Your task to perform on an android device: Open location settings Image 0: 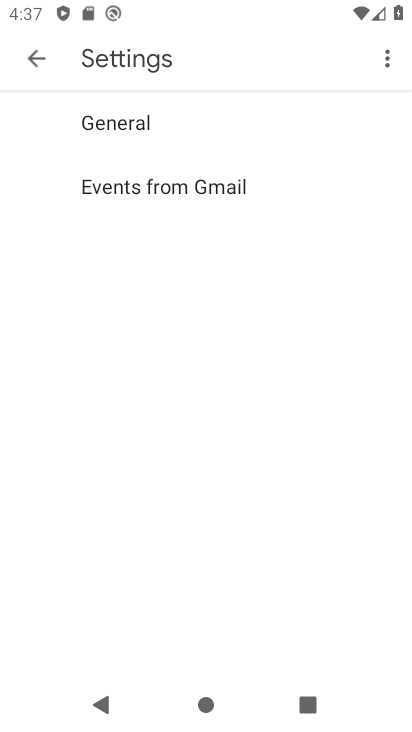
Step 0: press home button
Your task to perform on an android device: Open location settings Image 1: 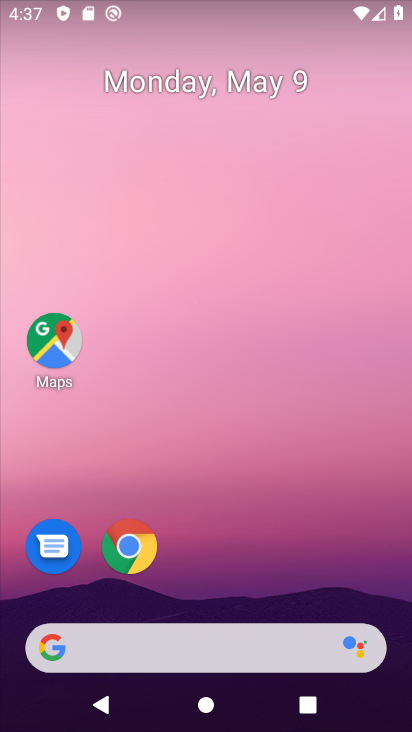
Step 1: drag from (231, 575) to (219, 6)
Your task to perform on an android device: Open location settings Image 2: 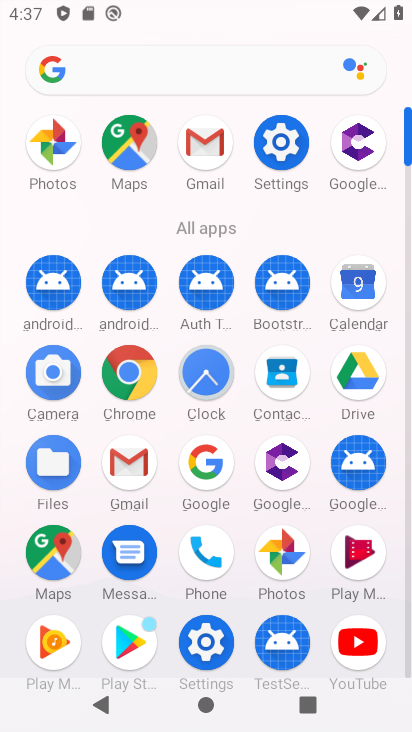
Step 2: click (299, 172)
Your task to perform on an android device: Open location settings Image 3: 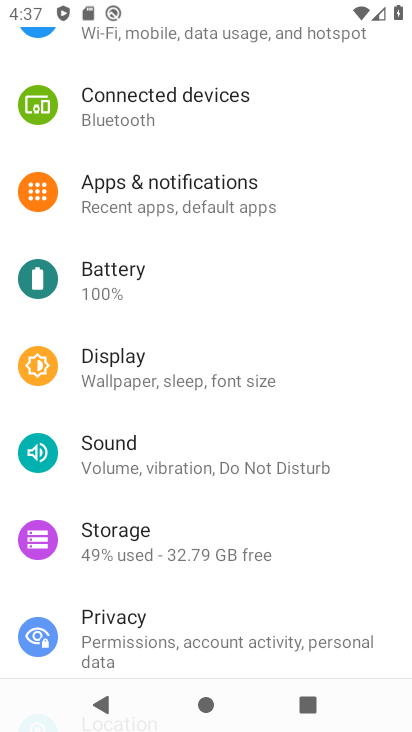
Step 3: drag from (193, 534) to (211, 359)
Your task to perform on an android device: Open location settings Image 4: 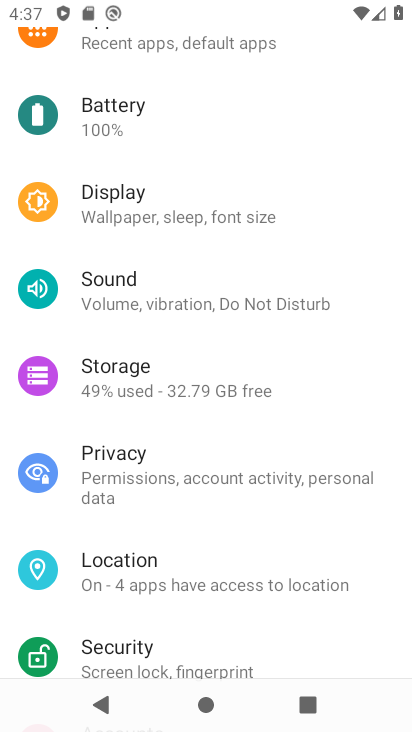
Step 4: click (142, 583)
Your task to perform on an android device: Open location settings Image 5: 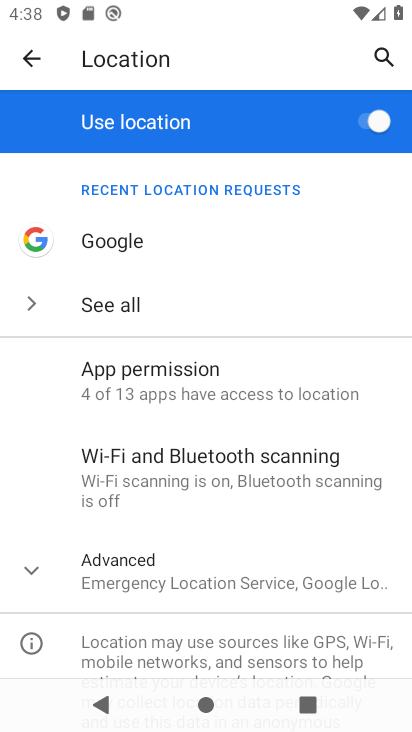
Step 5: task complete